Your task to perform on an android device: Search for seafood restaurants on Google Maps Image 0: 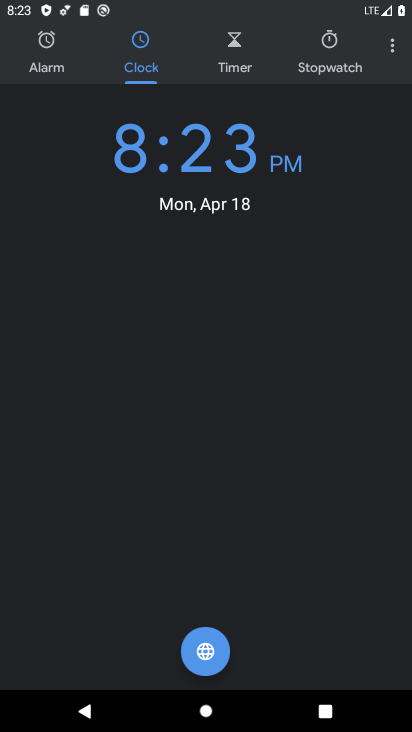
Step 0: press home button
Your task to perform on an android device: Search for seafood restaurants on Google Maps Image 1: 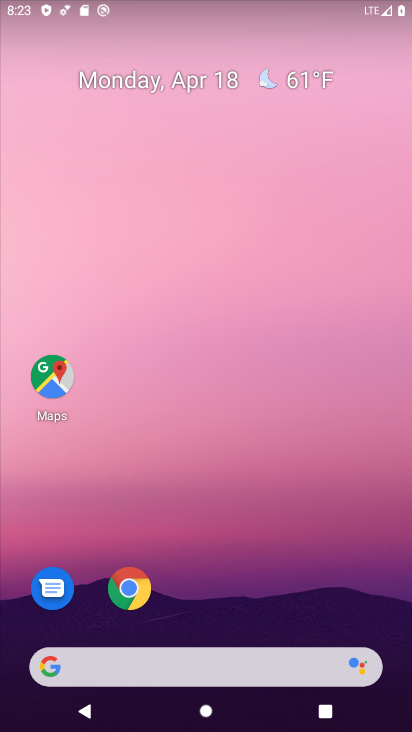
Step 1: click (49, 375)
Your task to perform on an android device: Search for seafood restaurants on Google Maps Image 2: 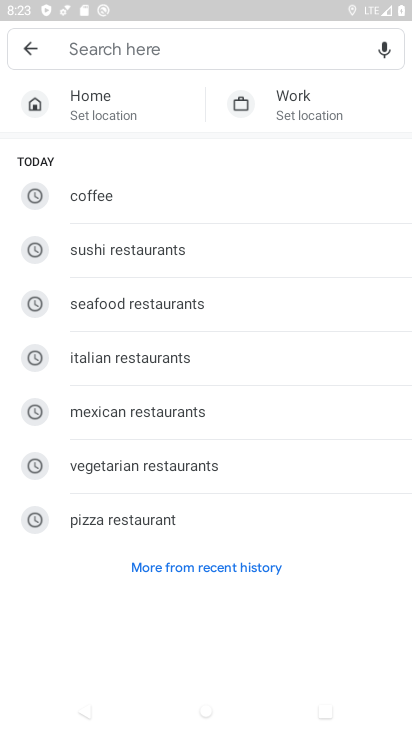
Step 2: click (118, 41)
Your task to perform on an android device: Search for seafood restaurants on Google Maps Image 3: 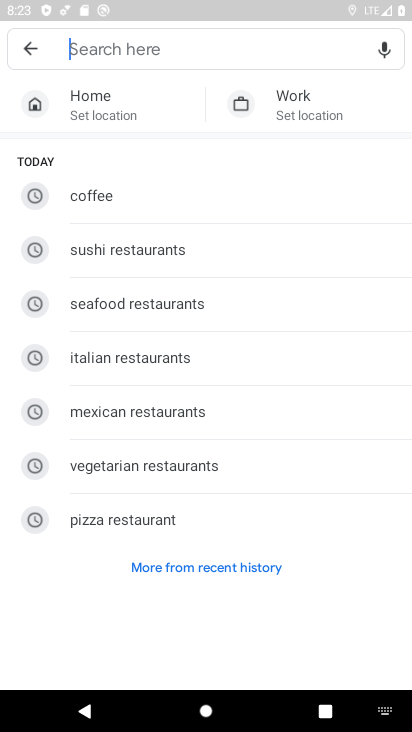
Step 3: type "seafood restaurants"
Your task to perform on an android device: Search for seafood restaurants on Google Maps Image 4: 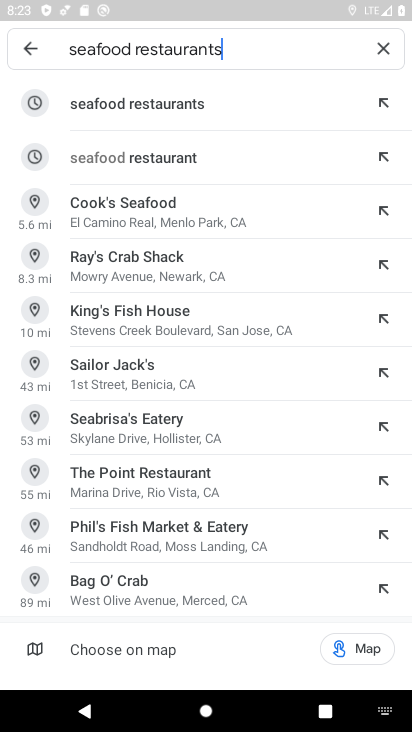
Step 4: click (154, 102)
Your task to perform on an android device: Search for seafood restaurants on Google Maps Image 5: 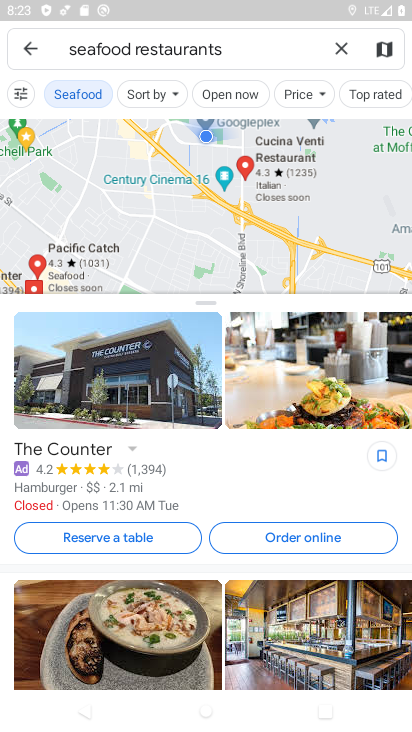
Step 5: task complete